Your task to perform on an android device: change text size in settings app Image 0: 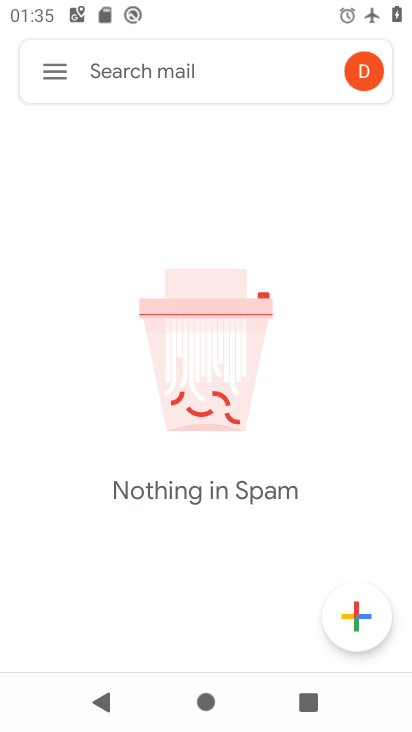
Step 0: press home button
Your task to perform on an android device: change text size in settings app Image 1: 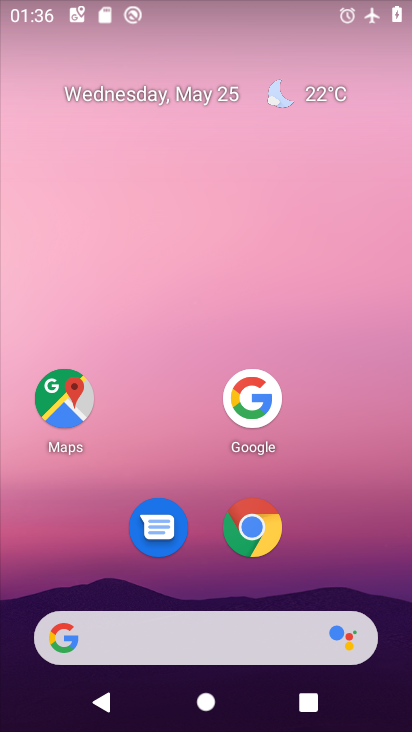
Step 1: drag from (196, 631) to (335, 79)
Your task to perform on an android device: change text size in settings app Image 2: 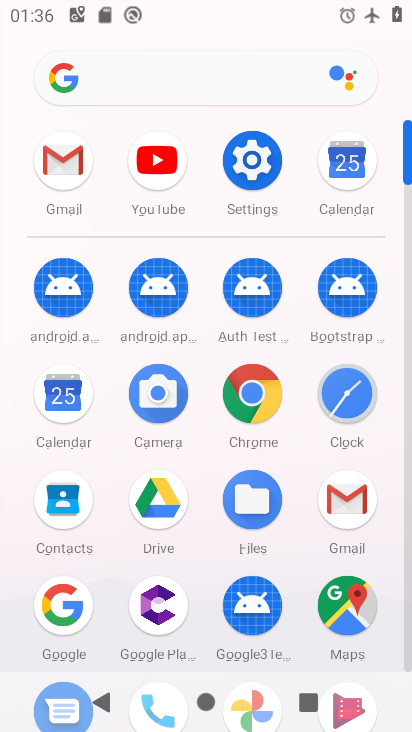
Step 2: click (241, 155)
Your task to perform on an android device: change text size in settings app Image 3: 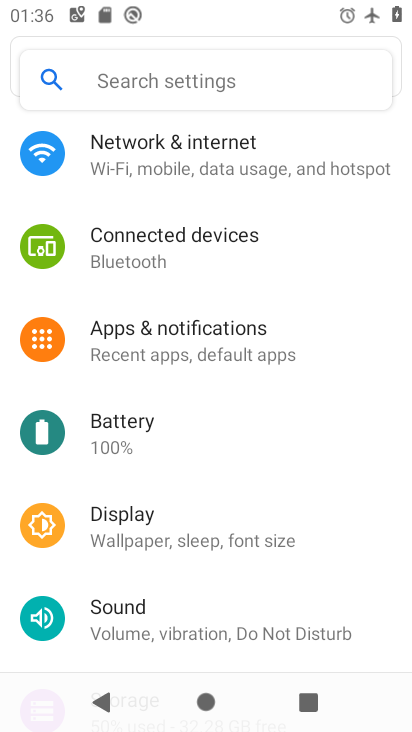
Step 3: click (207, 533)
Your task to perform on an android device: change text size in settings app Image 4: 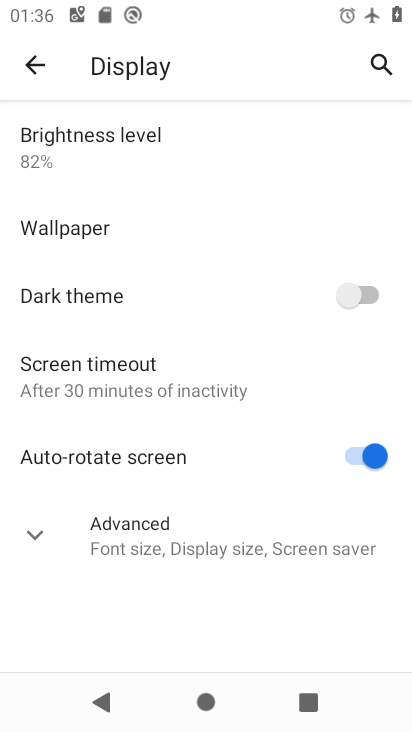
Step 4: click (150, 548)
Your task to perform on an android device: change text size in settings app Image 5: 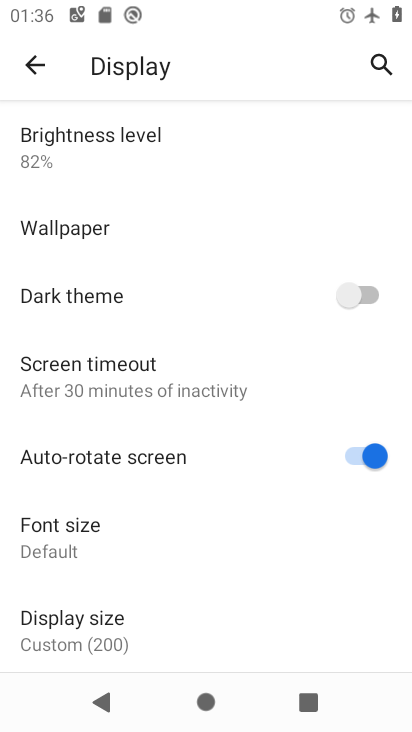
Step 5: click (78, 534)
Your task to perform on an android device: change text size in settings app Image 6: 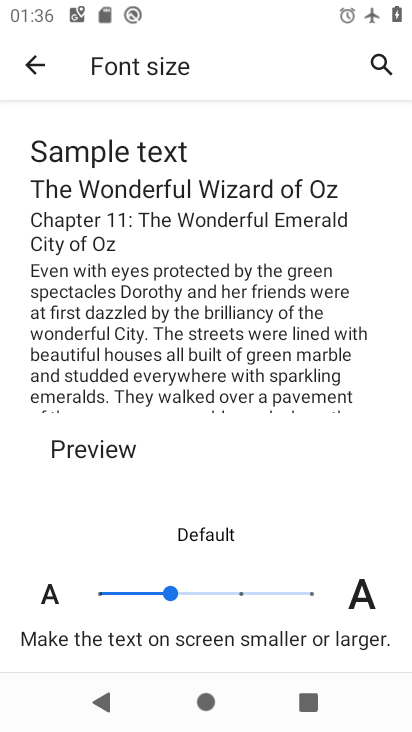
Step 6: click (96, 592)
Your task to perform on an android device: change text size in settings app Image 7: 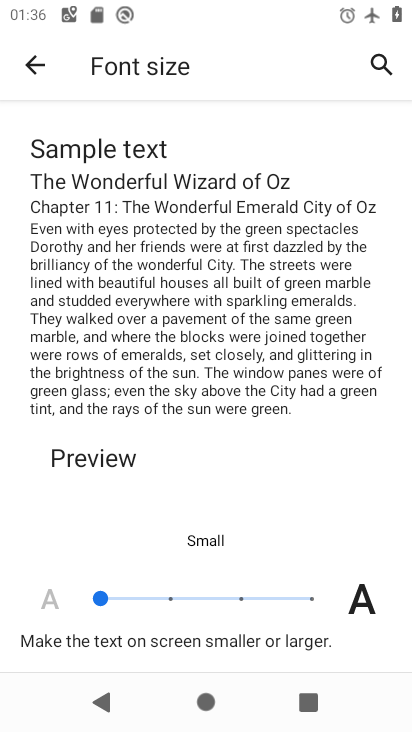
Step 7: task complete